Your task to perform on an android device: What is the recent news? Image 0: 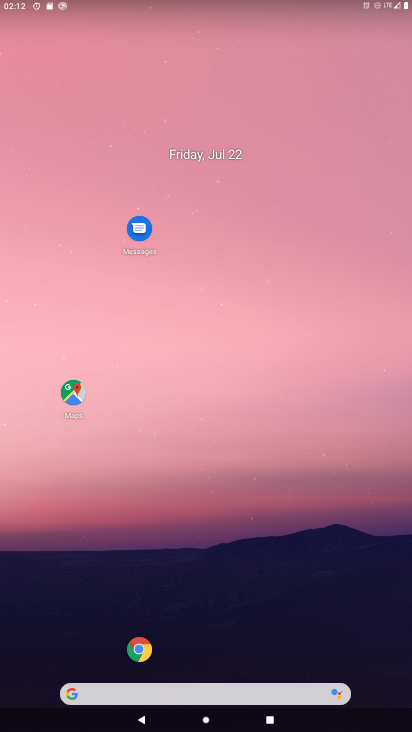
Step 0: click (105, 685)
Your task to perform on an android device: What is the recent news? Image 1: 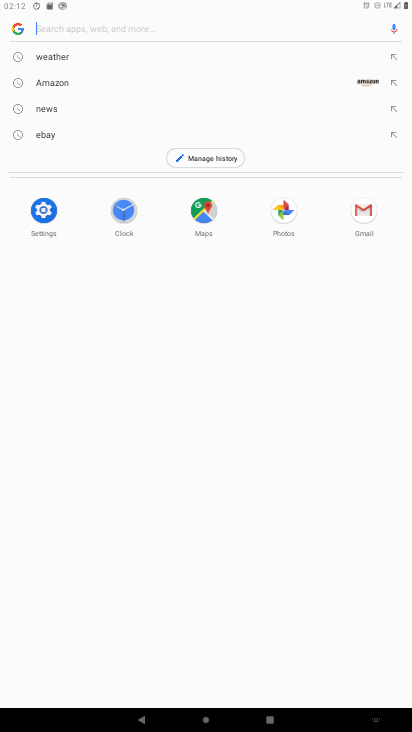
Step 1: type "What is the recent news?"
Your task to perform on an android device: What is the recent news? Image 2: 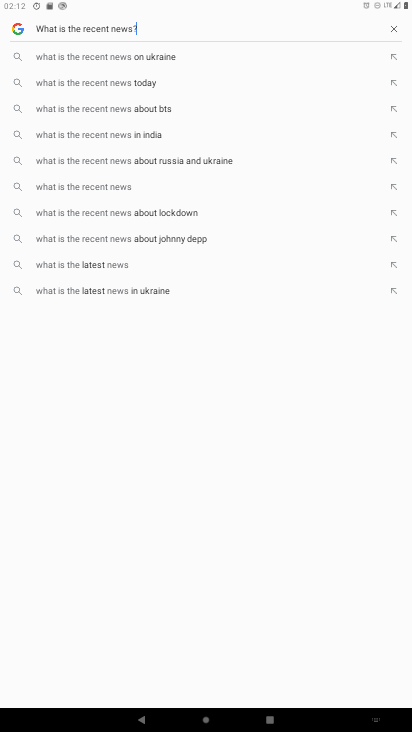
Step 2: type ""
Your task to perform on an android device: What is the recent news? Image 3: 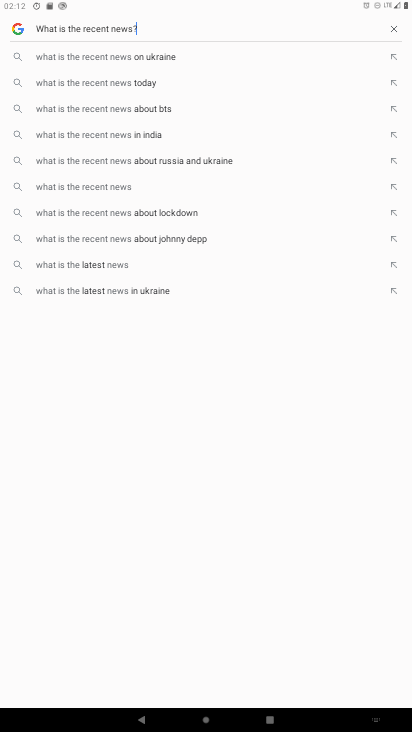
Step 3: type ""
Your task to perform on an android device: What is the recent news? Image 4: 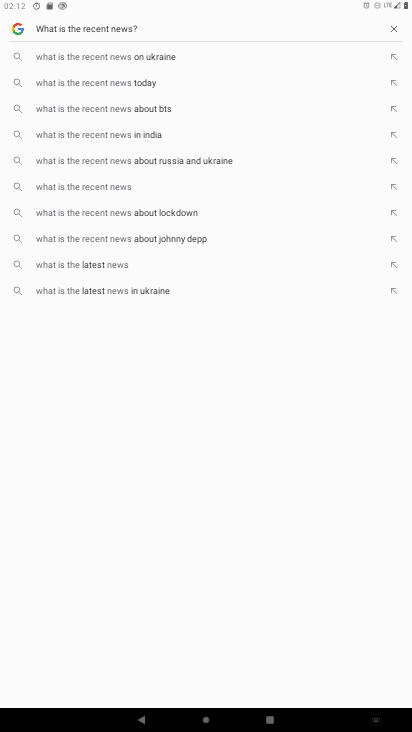
Step 4: type ""
Your task to perform on an android device: What is the recent news? Image 5: 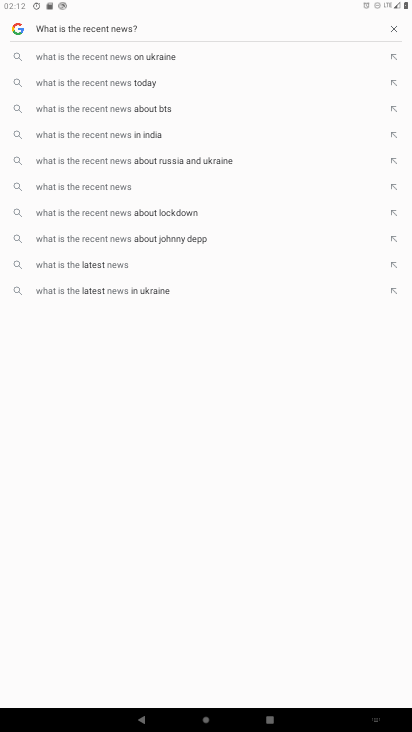
Step 5: task complete